Your task to perform on an android device: Go to Wikipedia Image 0: 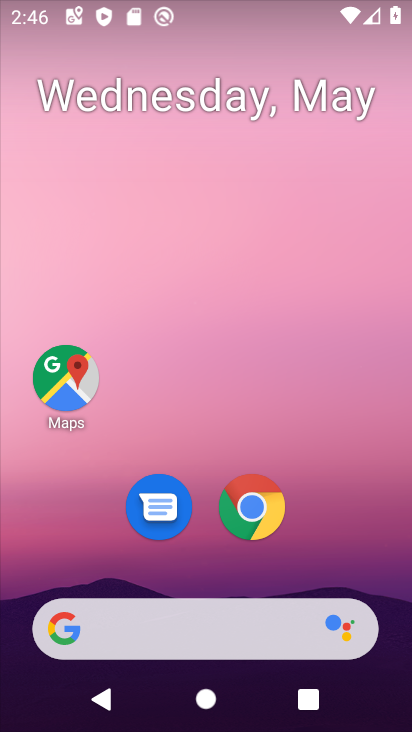
Step 0: click (263, 529)
Your task to perform on an android device: Go to Wikipedia Image 1: 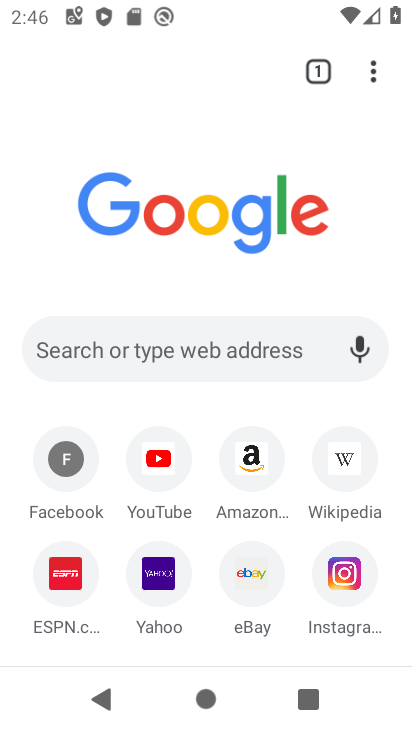
Step 1: click (350, 456)
Your task to perform on an android device: Go to Wikipedia Image 2: 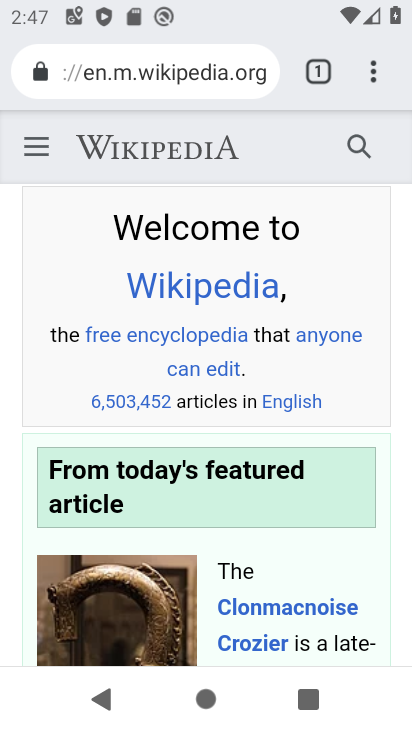
Step 2: task complete